Your task to perform on an android device: Open Google Chrome and click the shortcut for Amazon.com Image 0: 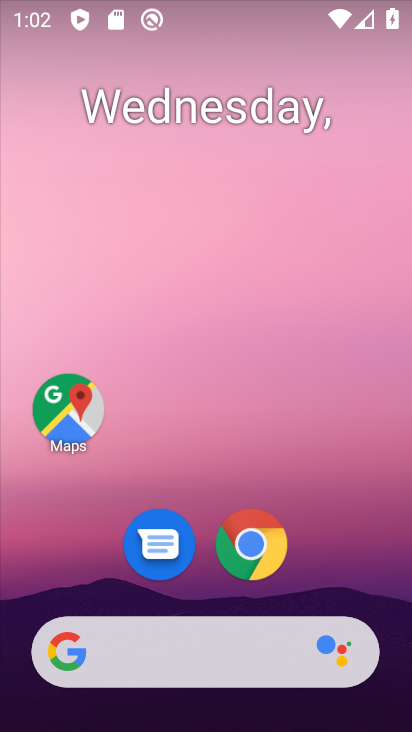
Step 0: click (266, 548)
Your task to perform on an android device: Open Google Chrome and click the shortcut for Amazon.com Image 1: 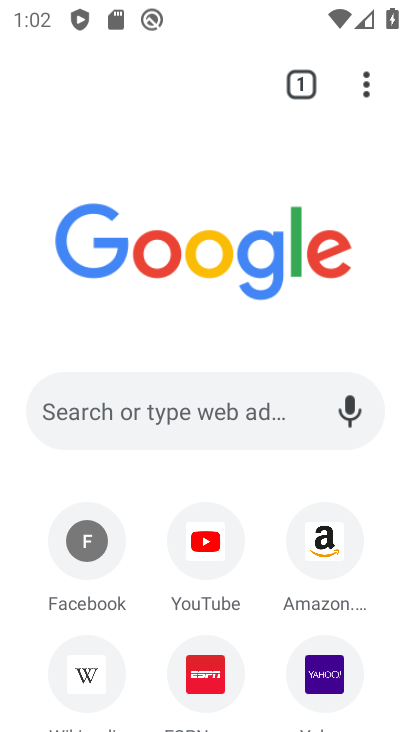
Step 1: click (338, 541)
Your task to perform on an android device: Open Google Chrome and click the shortcut for Amazon.com Image 2: 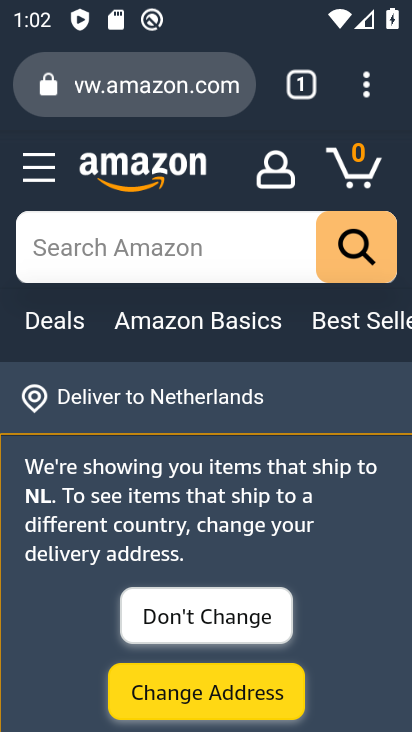
Step 2: task complete